Your task to perform on an android device: toggle notifications settings in the gmail app Image 0: 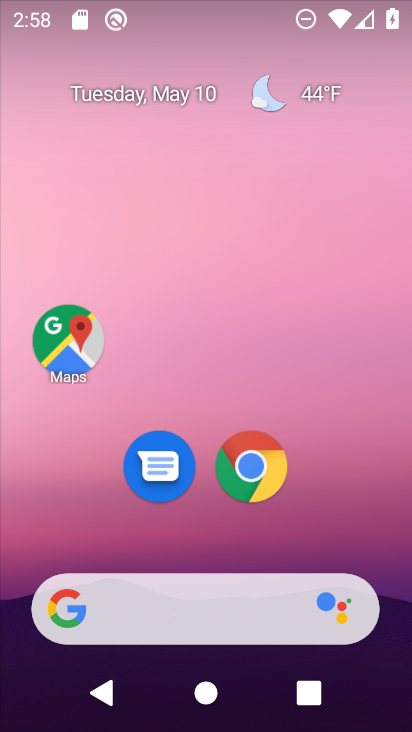
Step 0: drag from (291, 543) to (302, 17)
Your task to perform on an android device: toggle notifications settings in the gmail app Image 1: 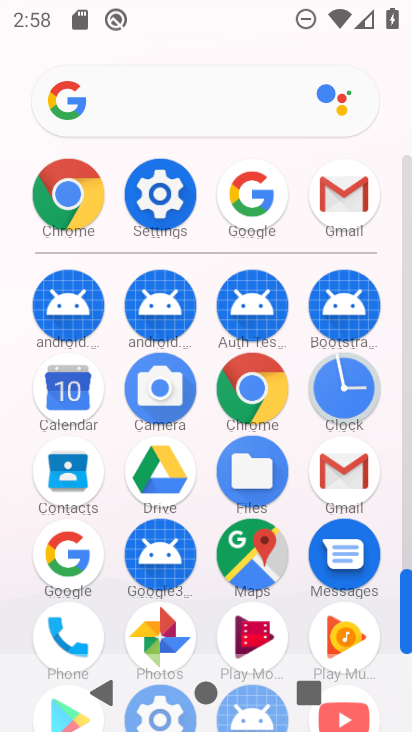
Step 1: click (342, 211)
Your task to perform on an android device: toggle notifications settings in the gmail app Image 2: 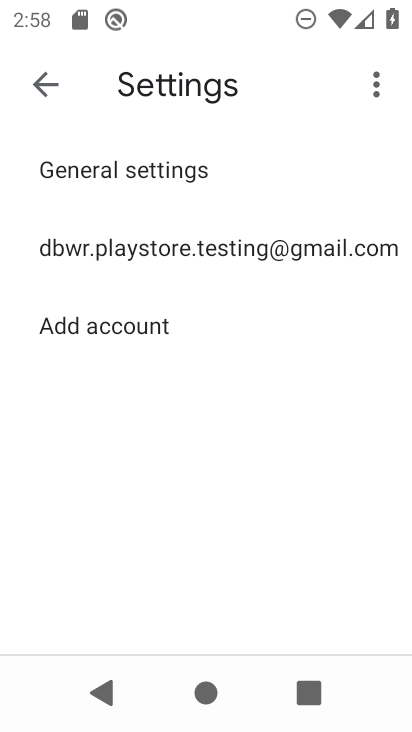
Step 2: click (293, 244)
Your task to perform on an android device: toggle notifications settings in the gmail app Image 3: 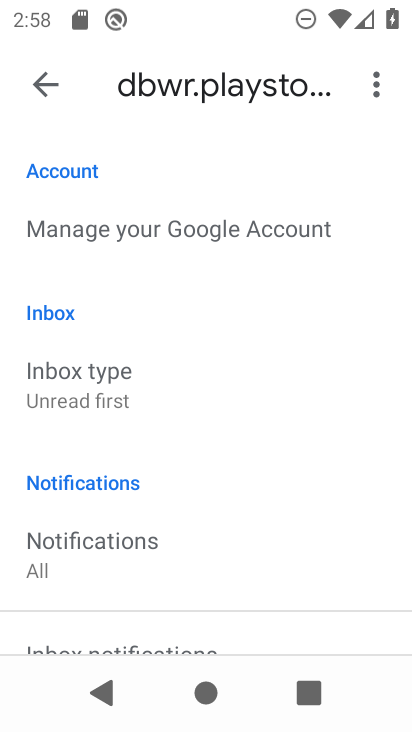
Step 3: drag from (139, 595) to (196, 265)
Your task to perform on an android device: toggle notifications settings in the gmail app Image 4: 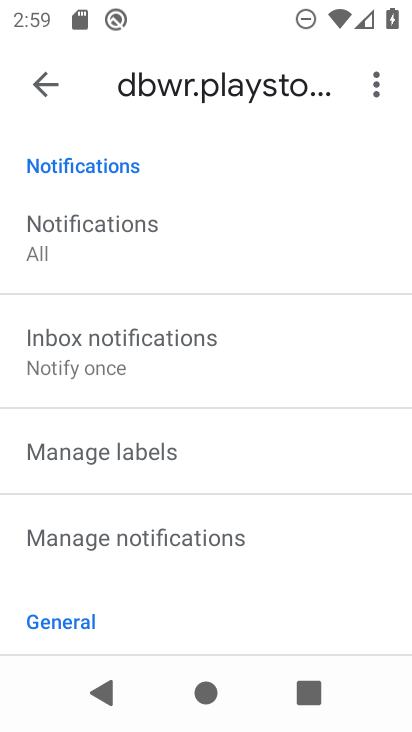
Step 4: click (138, 539)
Your task to perform on an android device: toggle notifications settings in the gmail app Image 5: 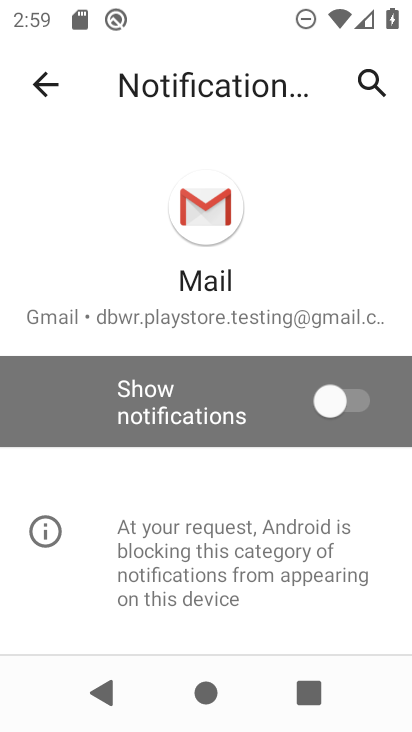
Step 5: click (365, 399)
Your task to perform on an android device: toggle notifications settings in the gmail app Image 6: 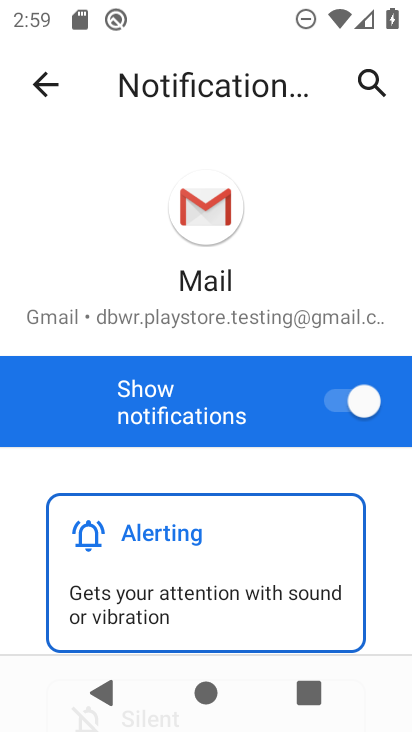
Step 6: task complete